Your task to perform on an android device: delete a single message in the gmail app Image 0: 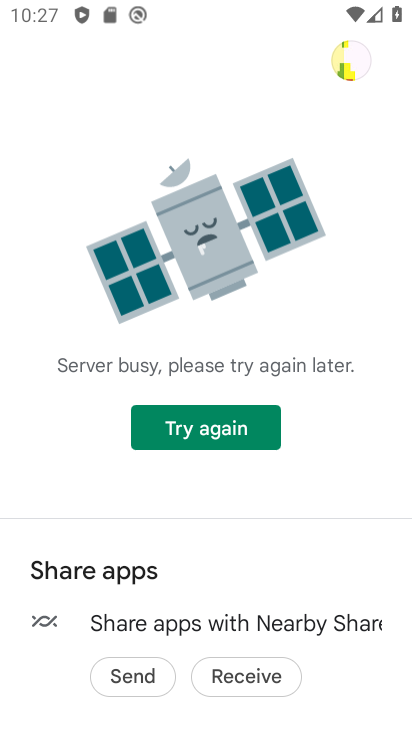
Step 0: press back button
Your task to perform on an android device: delete a single message in the gmail app Image 1: 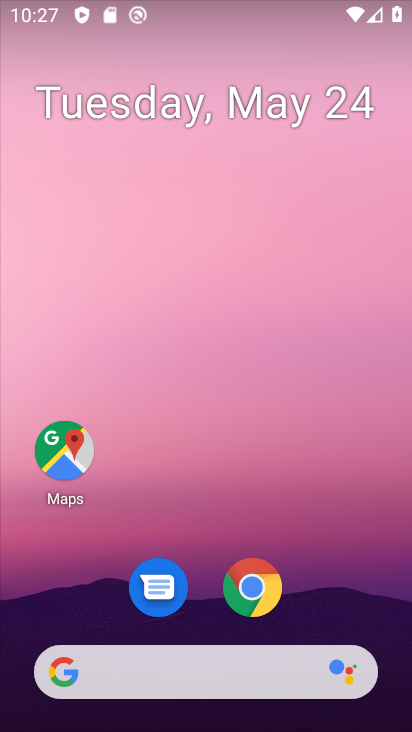
Step 1: drag from (297, 688) to (235, 214)
Your task to perform on an android device: delete a single message in the gmail app Image 2: 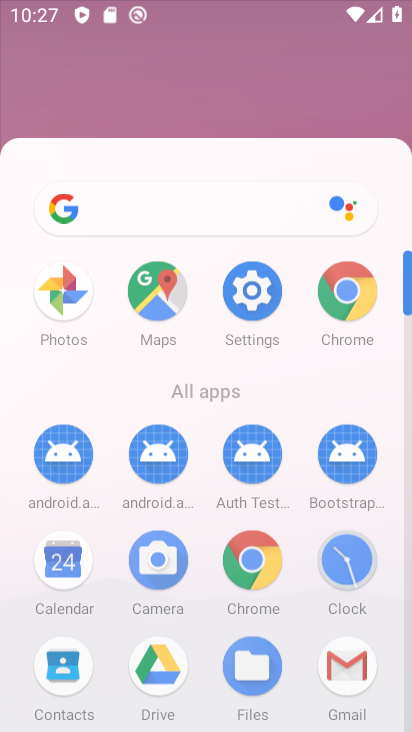
Step 2: click (143, 114)
Your task to perform on an android device: delete a single message in the gmail app Image 3: 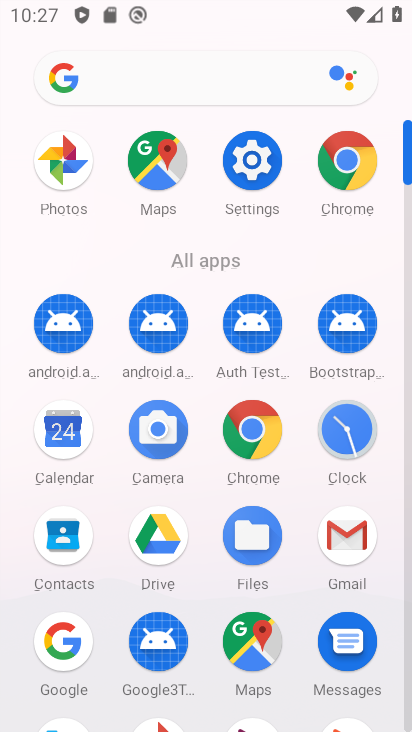
Step 3: click (338, 537)
Your task to perform on an android device: delete a single message in the gmail app Image 4: 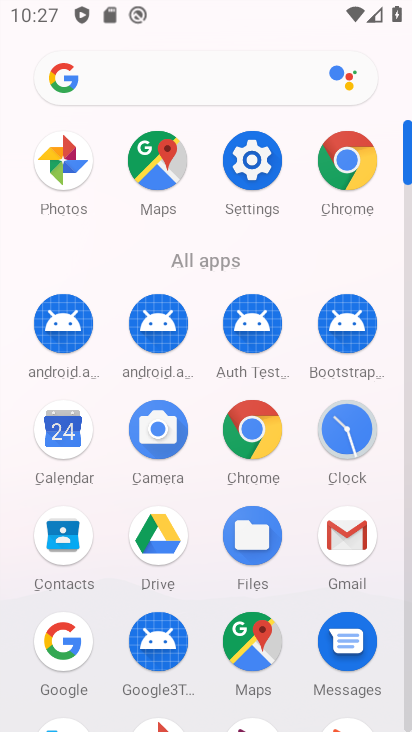
Step 4: click (339, 536)
Your task to perform on an android device: delete a single message in the gmail app Image 5: 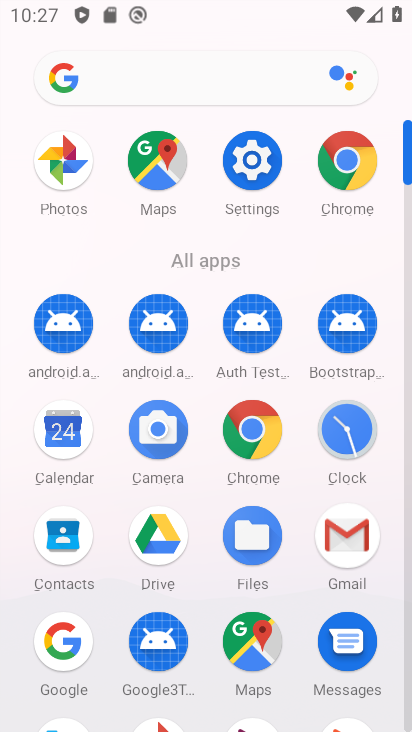
Step 5: click (342, 534)
Your task to perform on an android device: delete a single message in the gmail app Image 6: 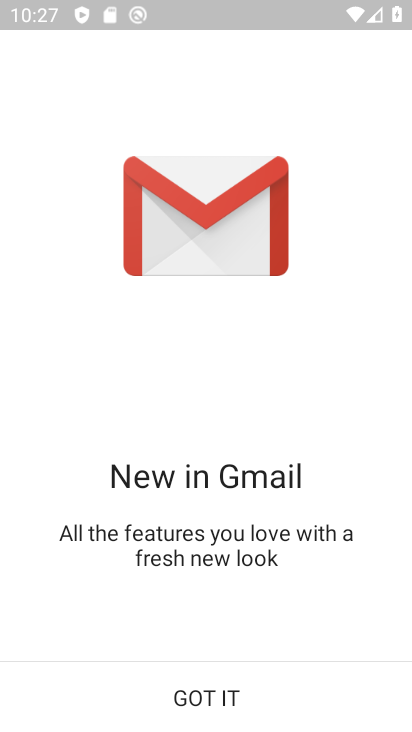
Step 6: click (193, 704)
Your task to perform on an android device: delete a single message in the gmail app Image 7: 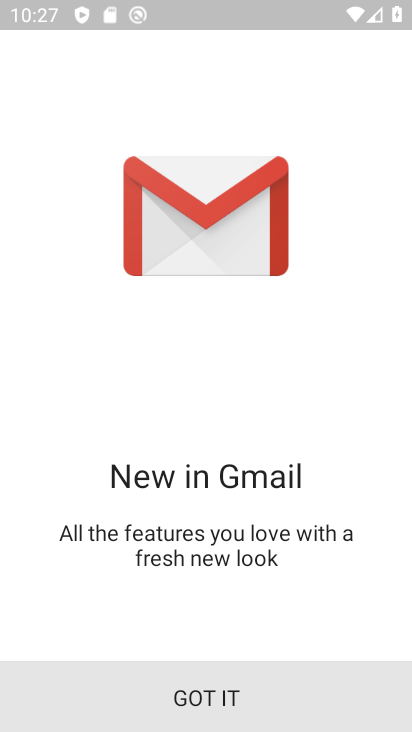
Step 7: click (194, 704)
Your task to perform on an android device: delete a single message in the gmail app Image 8: 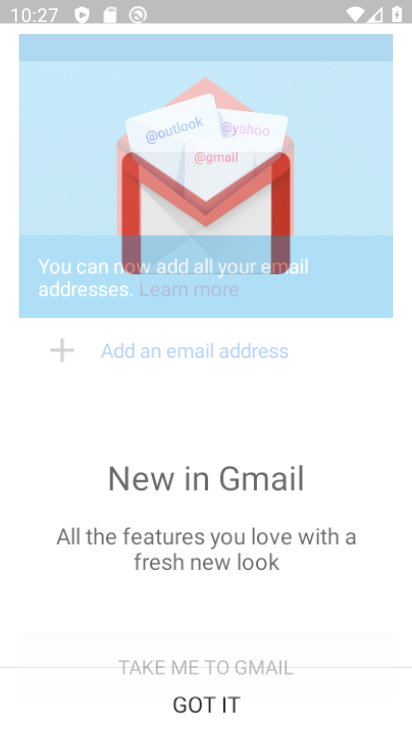
Step 8: click (199, 701)
Your task to perform on an android device: delete a single message in the gmail app Image 9: 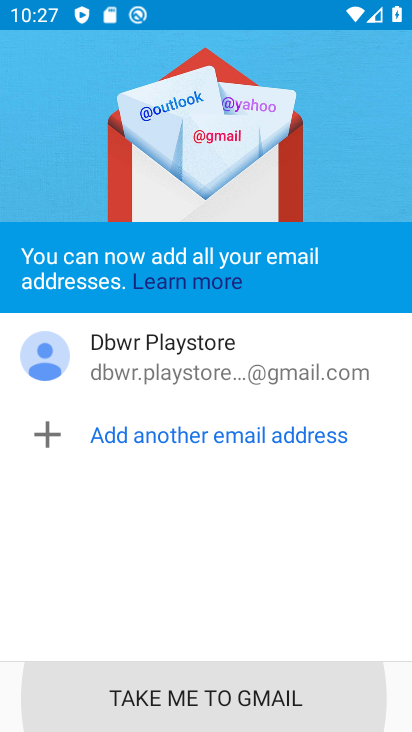
Step 9: click (199, 700)
Your task to perform on an android device: delete a single message in the gmail app Image 10: 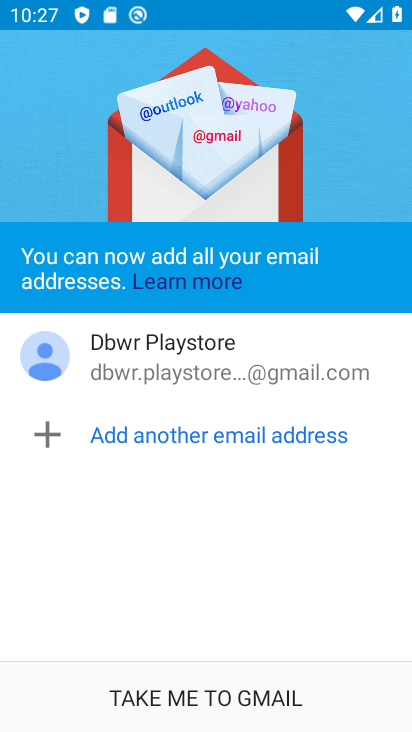
Step 10: click (200, 699)
Your task to perform on an android device: delete a single message in the gmail app Image 11: 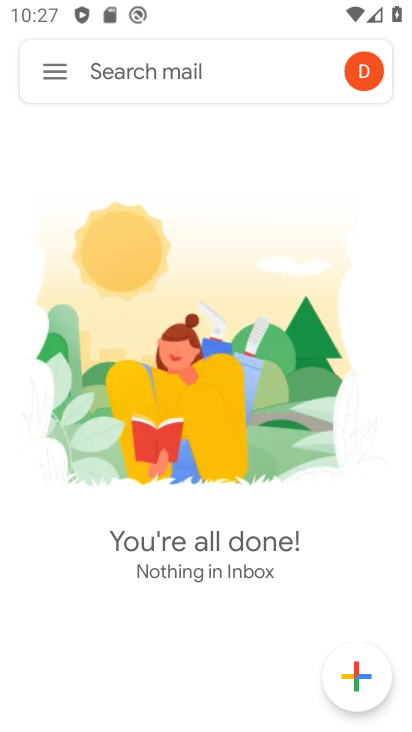
Step 11: click (54, 74)
Your task to perform on an android device: delete a single message in the gmail app Image 12: 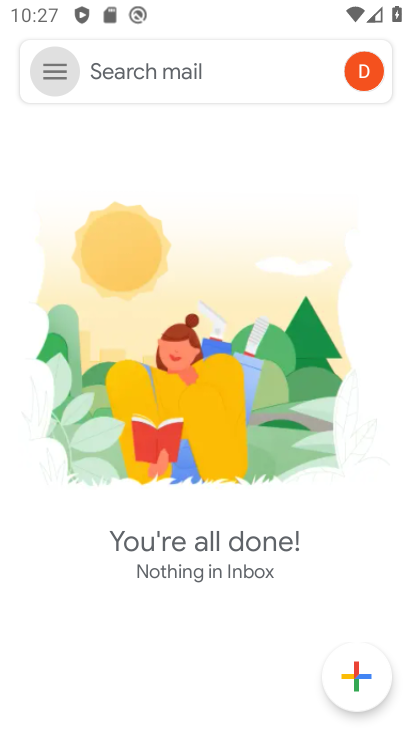
Step 12: drag from (54, 74) to (168, 150)
Your task to perform on an android device: delete a single message in the gmail app Image 13: 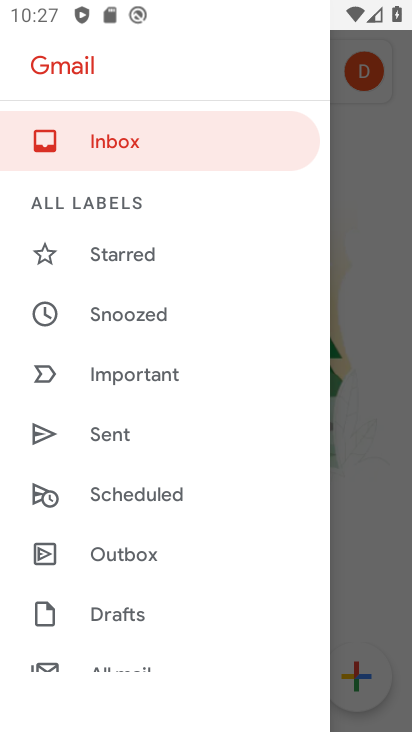
Step 13: drag from (133, 451) to (158, 113)
Your task to perform on an android device: delete a single message in the gmail app Image 14: 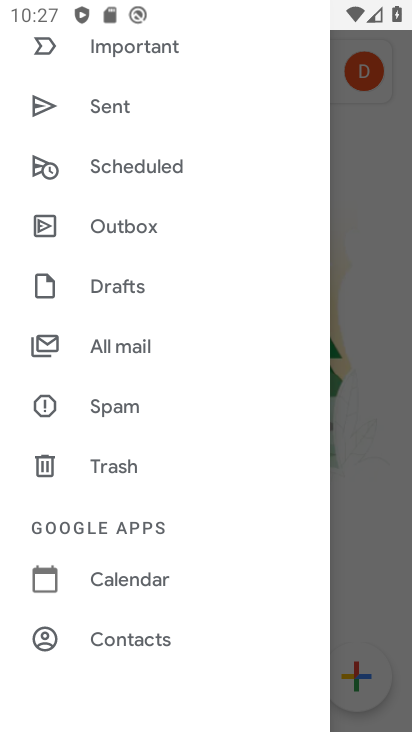
Step 14: drag from (182, 356) to (205, 207)
Your task to perform on an android device: delete a single message in the gmail app Image 15: 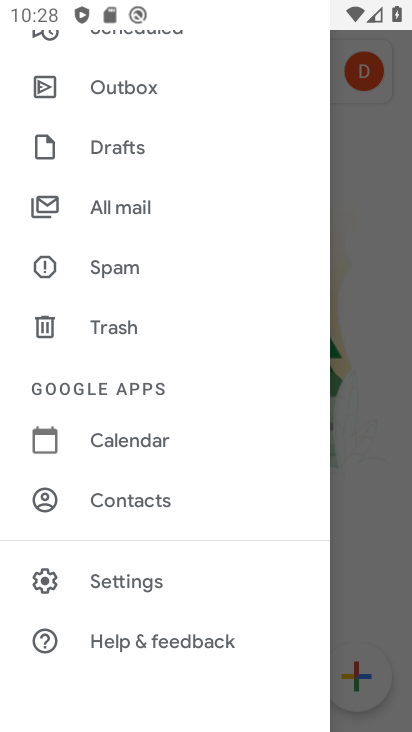
Step 15: click (113, 205)
Your task to perform on an android device: delete a single message in the gmail app Image 16: 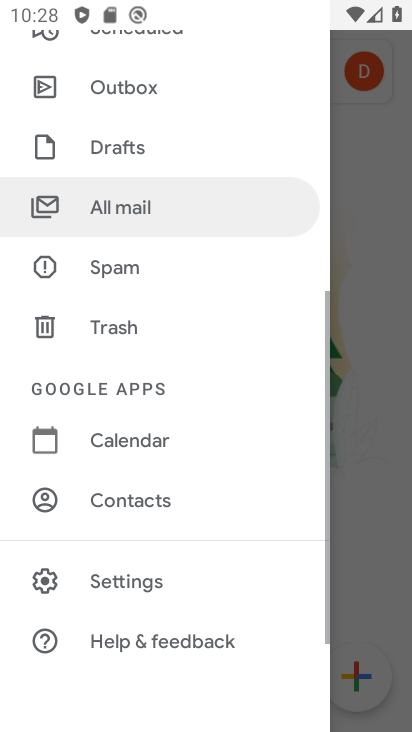
Step 16: click (114, 204)
Your task to perform on an android device: delete a single message in the gmail app Image 17: 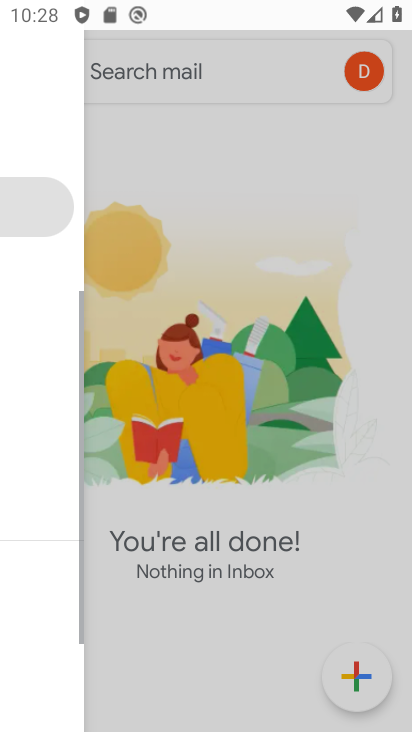
Step 17: click (114, 204)
Your task to perform on an android device: delete a single message in the gmail app Image 18: 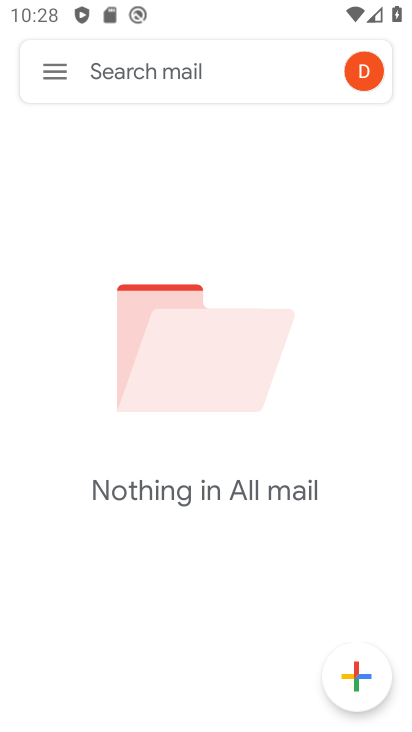
Step 18: task complete